Your task to perform on an android device: Do I have any events today? Image 0: 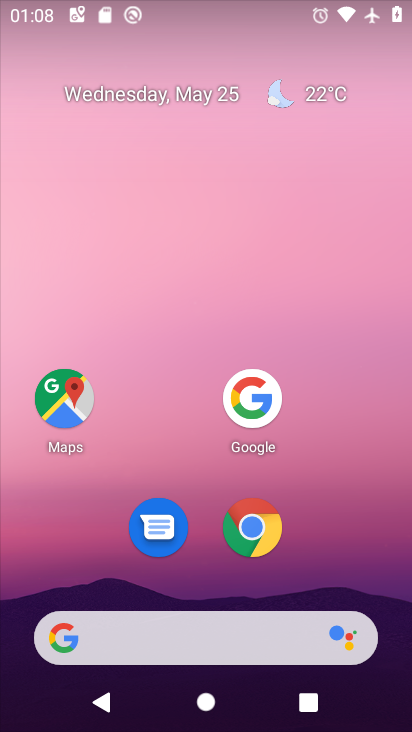
Step 0: press home button
Your task to perform on an android device: Do I have any events today? Image 1: 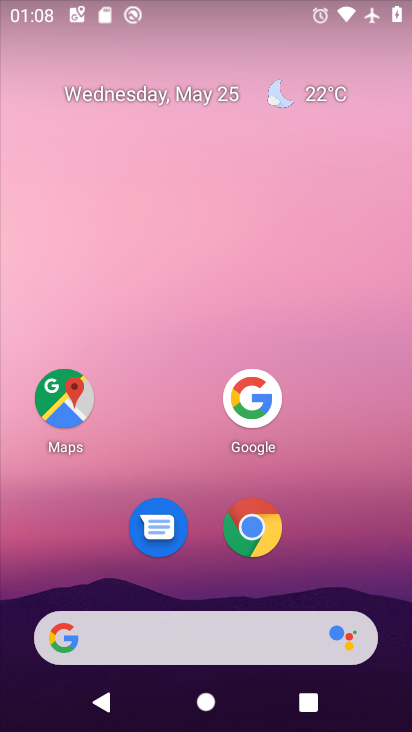
Step 1: drag from (181, 528) to (311, 166)
Your task to perform on an android device: Do I have any events today? Image 2: 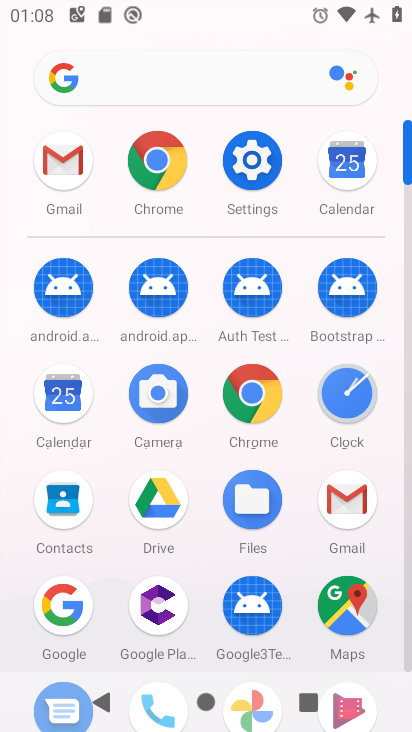
Step 2: click (70, 408)
Your task to perform on an android device: Do I have any events today? Image 3: 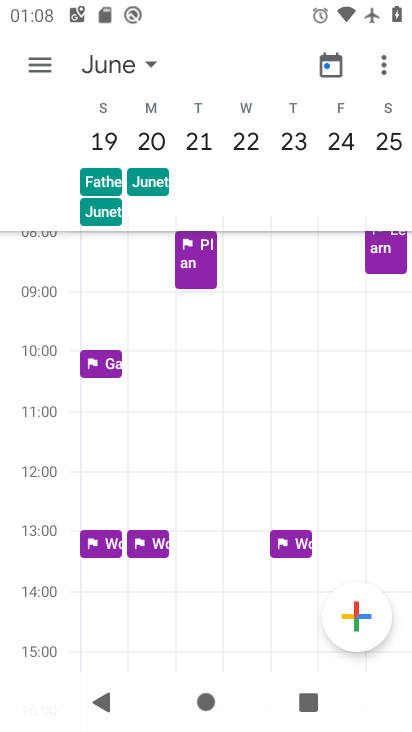
Step 3: click (104, 56)
Your task to perform on an android device: Do I have any events today? Image 4: 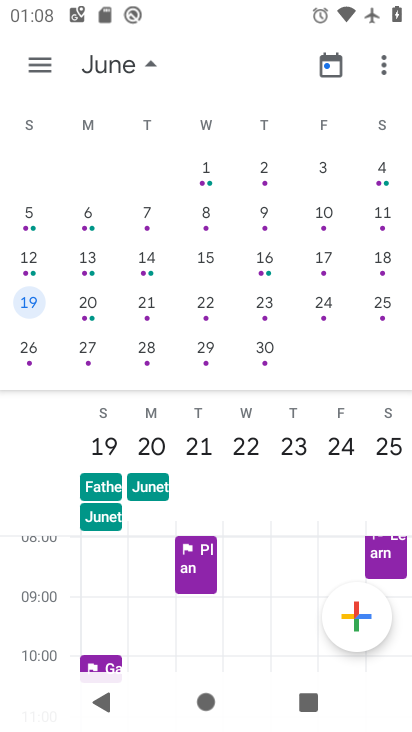
Step 4: drag from (96, 310) to (409, 277)
Your task to perform on an android device: Do I have any events today? Image 5: 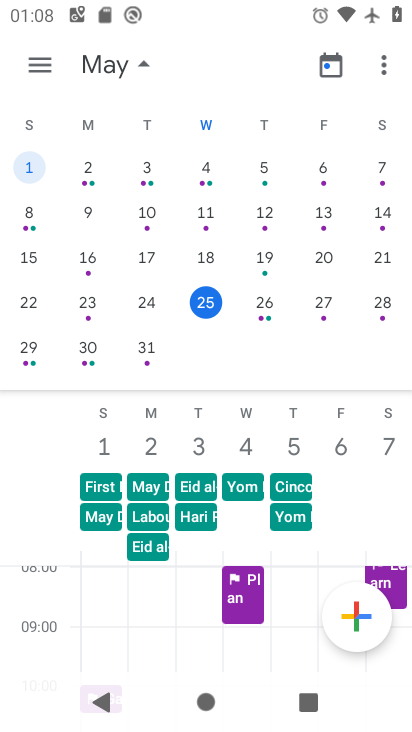
Step 5: click (210, 307)
Your task to perform on an android device: Do I have any events today? Image 6: 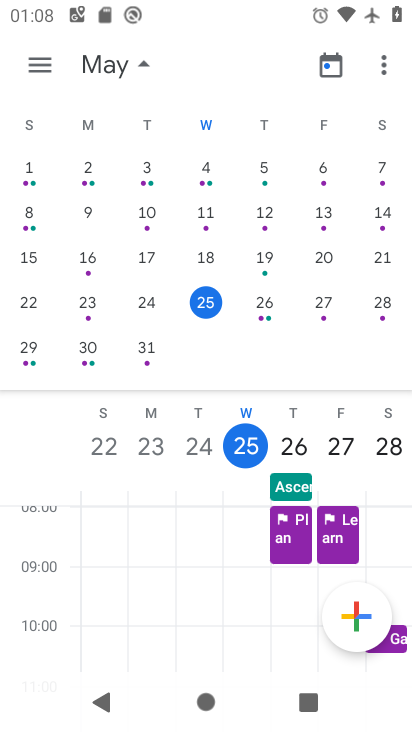
Step 6: click (34, 65)
Your task to perform on an android device: Do I have any events today? Image 7: 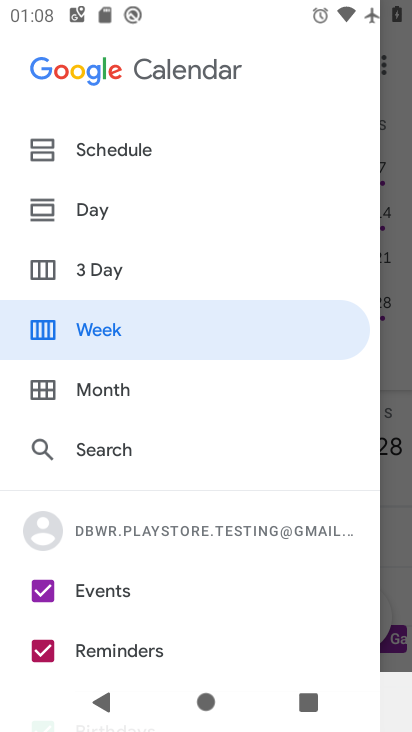
Step 7: click (97, 219)
Your task to perform on an android device: Do I have any events today? Image 8: 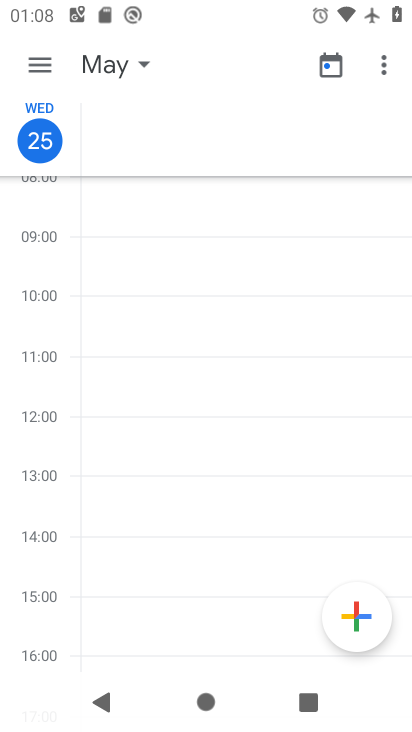
Step 8: click (39, 70)
Your task to perform on an android device: Do I have any events today? Image 9: 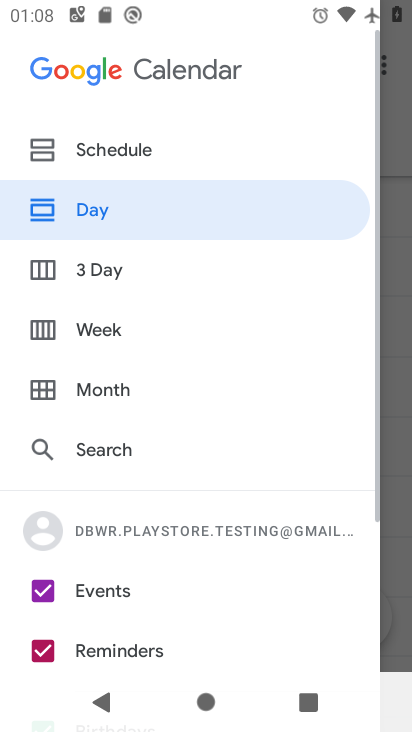
Step 9: click (118, 144)
Your task to perform on an android device: Do I have any events today? Image 10: 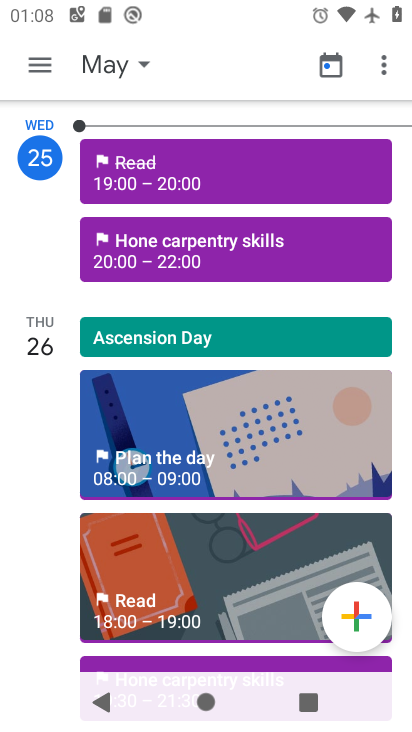
Step 10: click (160, 166)
Your task to perform on an android device: Do I have any events today? Image 11: 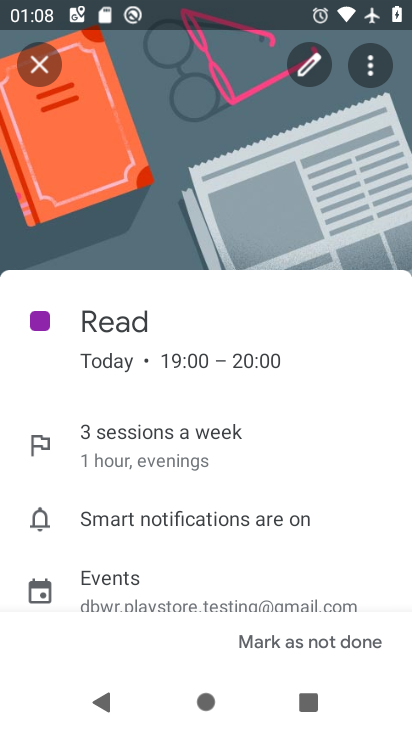
Step 11: task complete